Your task to perform on an android device: snooze an email in the gmail app Image 0: 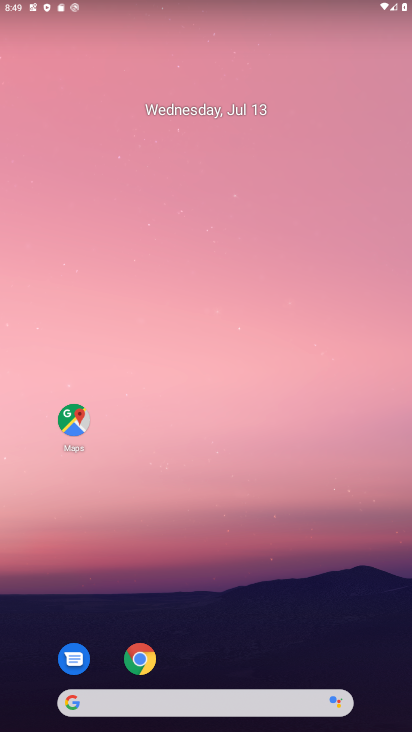
Step 0: drag from (239, 611) to (327, 77)
Your task to perform on an android device: snooze an email in the gmail app Image 1: 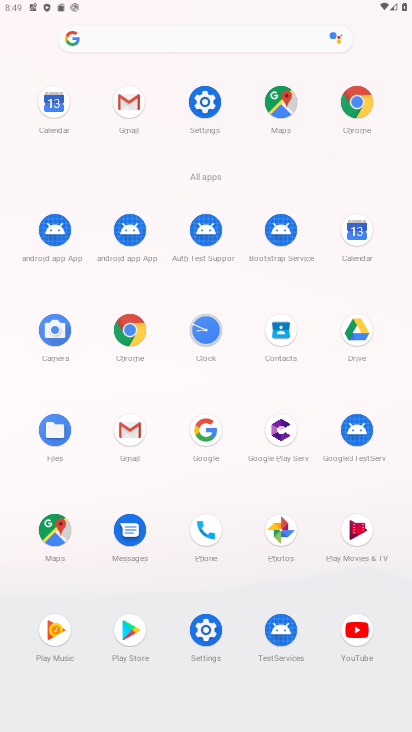
Step 1: click (128, 101)
Your task to perform on an android device: snooze an email in the gmail app Image 2: 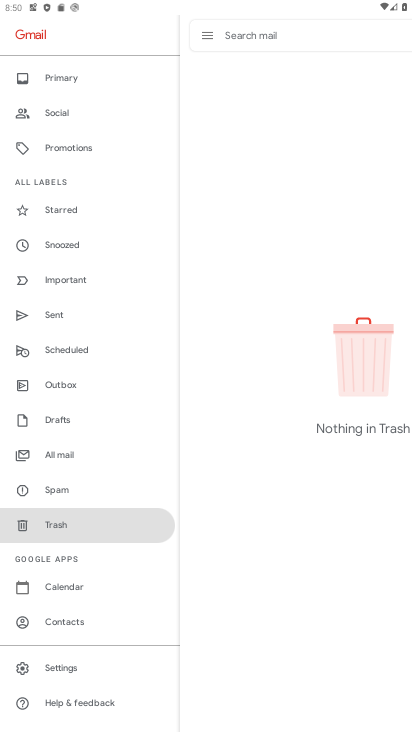
Step 2: click (72, 457)
Your task to perform on an android device: snooze an email in the gmail app Image 3: 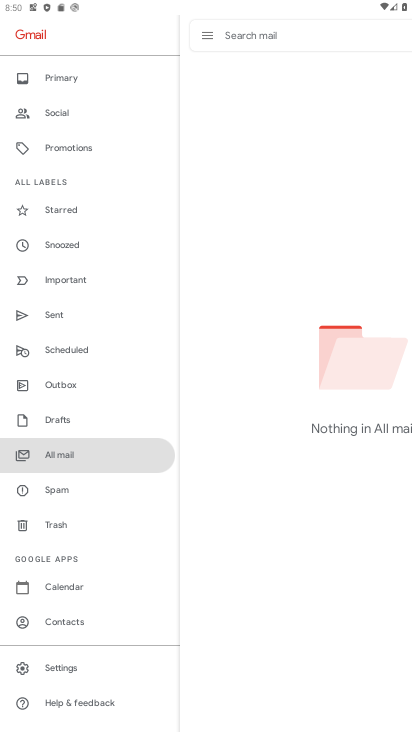
Step 3: task complete